Your task to perform on an android device: Open sound settings Image 0: 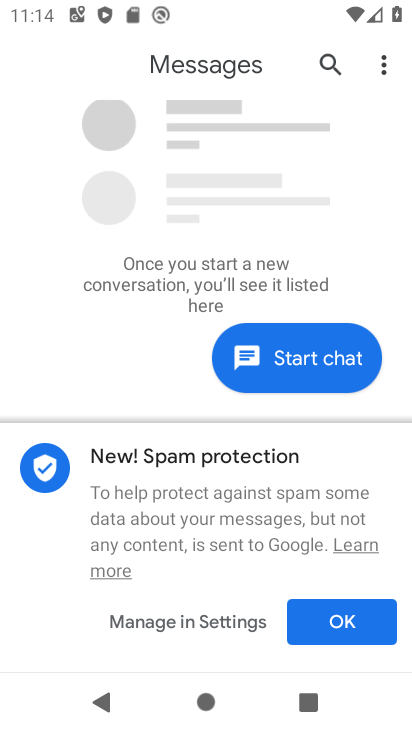
Step 0: press home button
Your task to perform on an android device: Open sound settings Image 1: 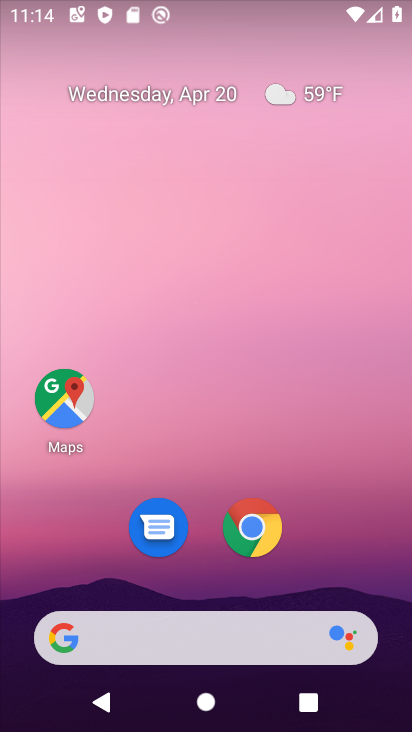
Step 1: drag from (364, 482) to (385, 146)
Your task to perform on an android device: Open sound settings Image 2: 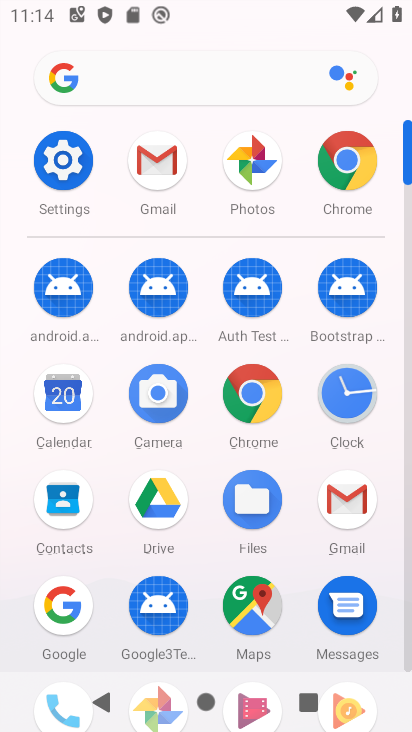
Step 2: click (66, 149)
Your task to perform on an android device: Open sound settings Image 3: 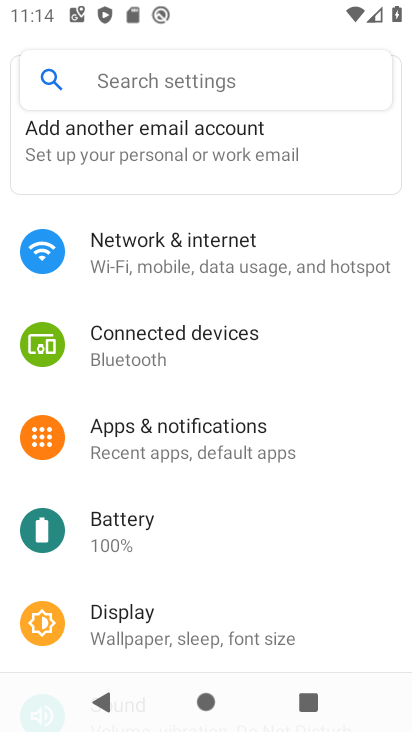
Step 3: drag from (197, 609) to (243, 312)
Your task to perform on an android device: Open sound settings Image 4: 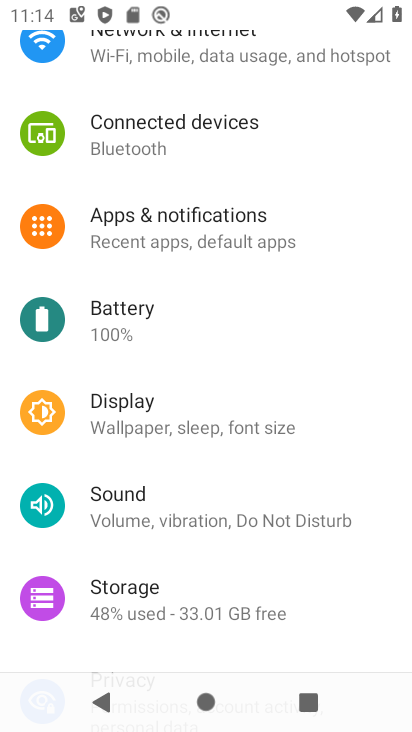
Step 4: click (168, 517)
Your task to perform on an android device: Open sound settings Image 5: 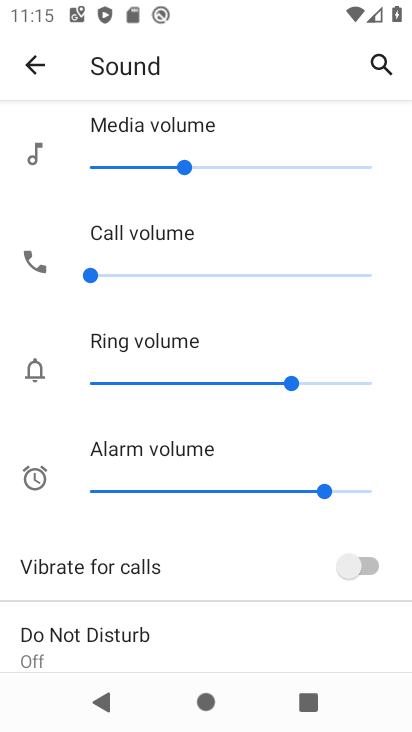
Step 5: task complete